Your task to perform on an android device: Open network settings Image 0: 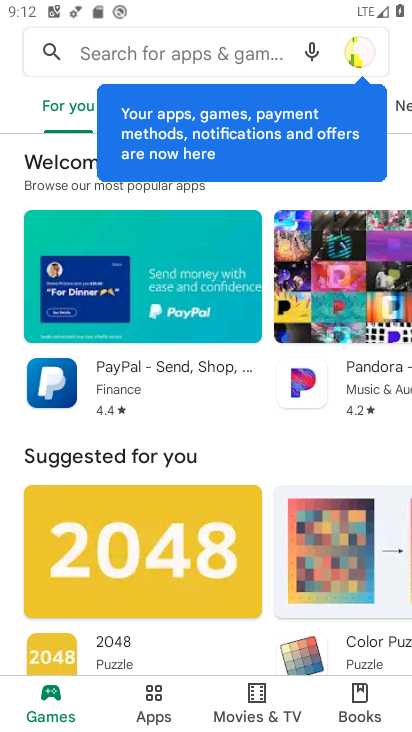
Step 0: press home button
Your task to perform on an android device: Open network settings Image 1: 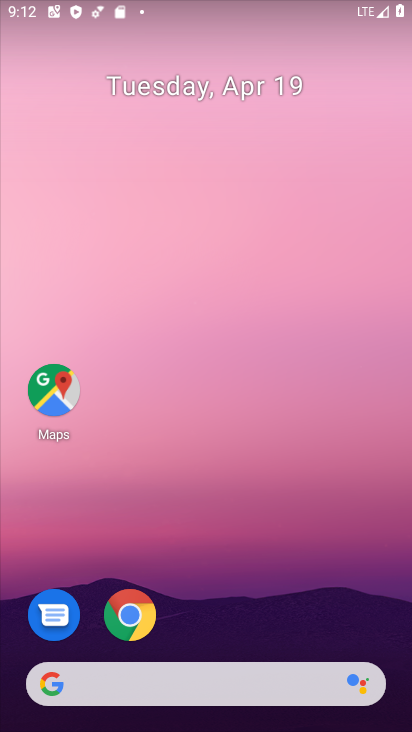
Step 1: drag from (226, 588) to (234, 60)
Your task to perform on an android device: Open network settings Image 2: 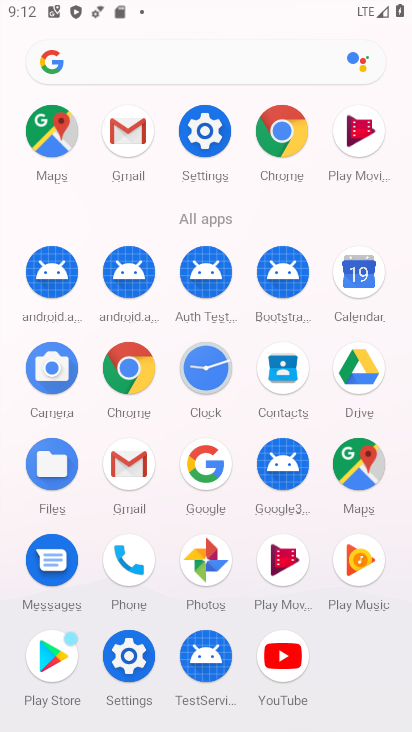
Step 2: click (215, 115)
Your task to perform on an android device: Open network settings Image 3: 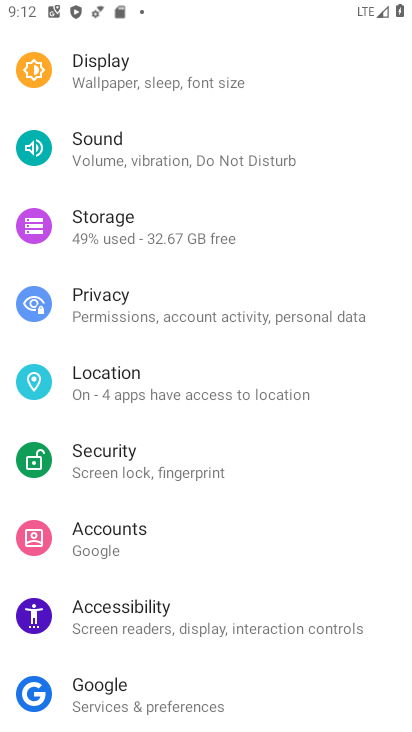
Step 3: drag from (156, 115) to (90, 520)
Your task to perform on an android device: Open network settings Image 4: 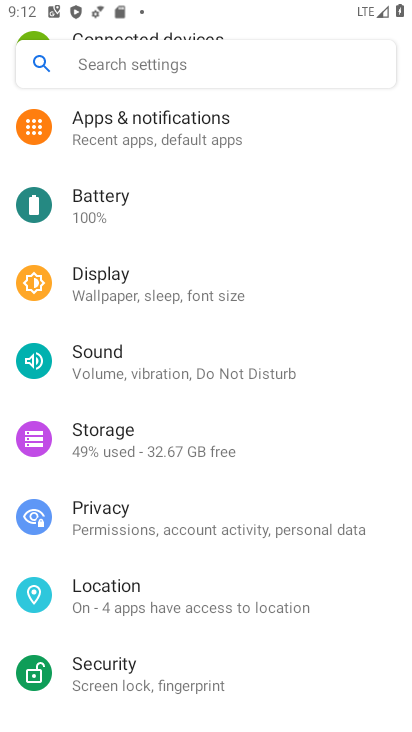
Step 4: drag from (236, 152) to (223, 593)
Your task to perform on an android device: Open network settings Image 5: 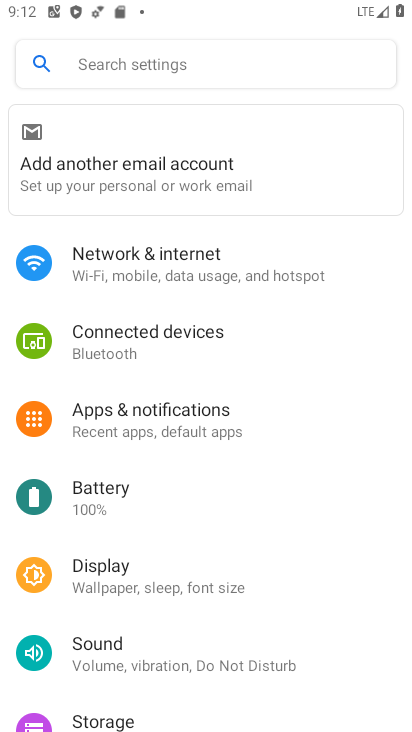
Step 5: click (158, 279)
Your task to perform on an android device: Open network settings Image 6: 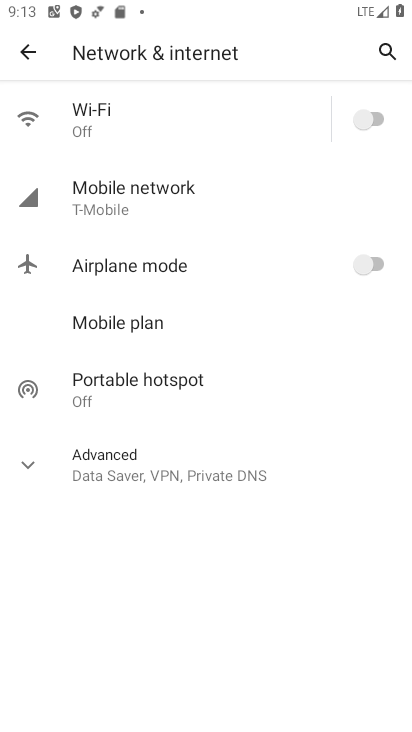
Step 6: task complete